Your task to perform on an android device: turn notification dots off Image 0: 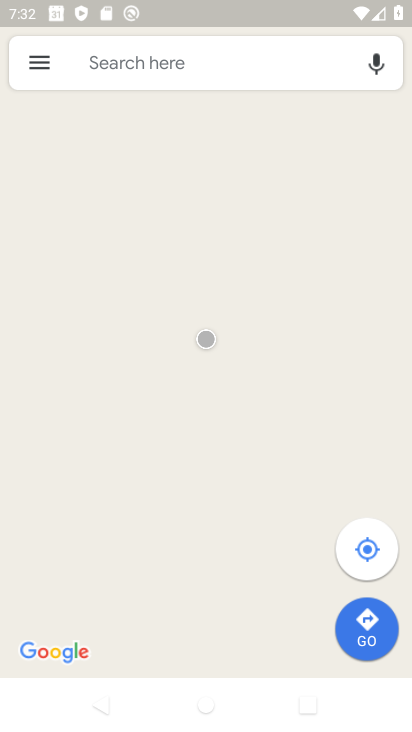
Step 0: press home button
Your task to perform on an android device: turn notification dots off Image 1: 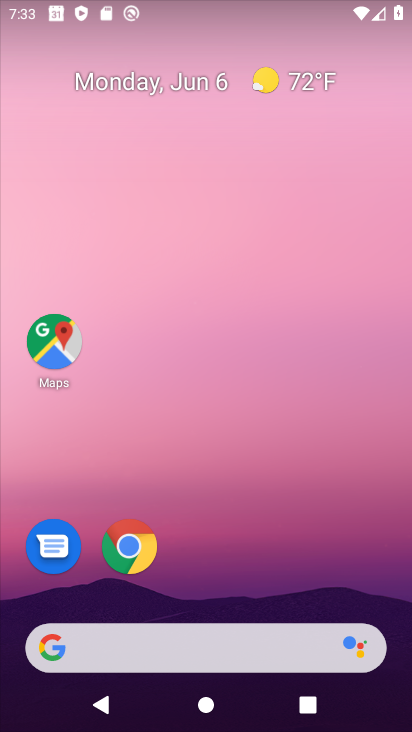
Step 1: drag from (219, 586) to (247, 207)
Your task to perform on an android device: turn notification dots off Image 2: 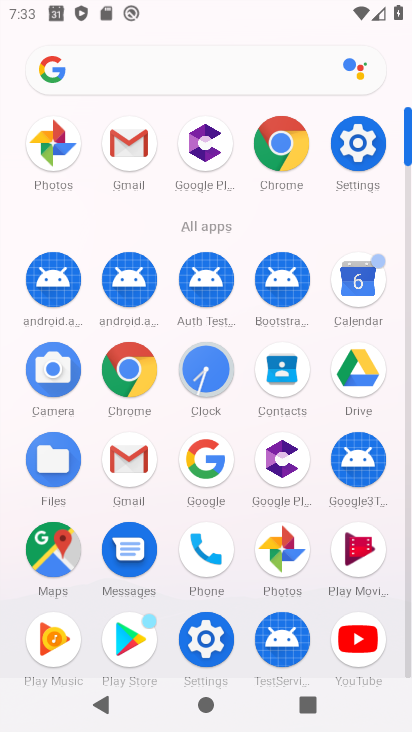
Step 2: click (337, 134)
Your task to perform on an android device: turn notification dots off Image 3: 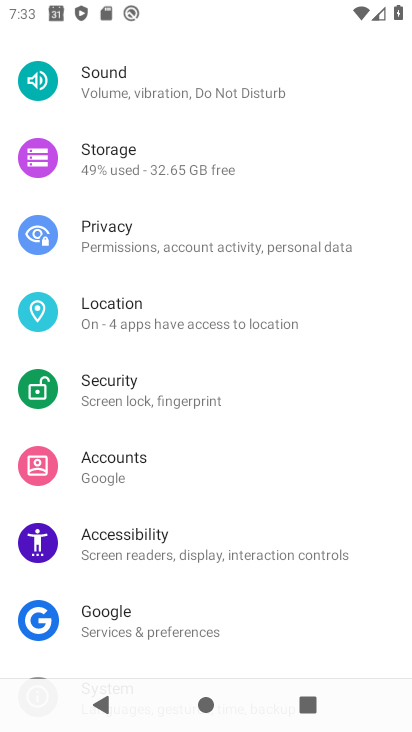
Step 3: drag from (183, 104) to (189, 508)
Your task to perform on an android device: turn notification dots off Image 4: 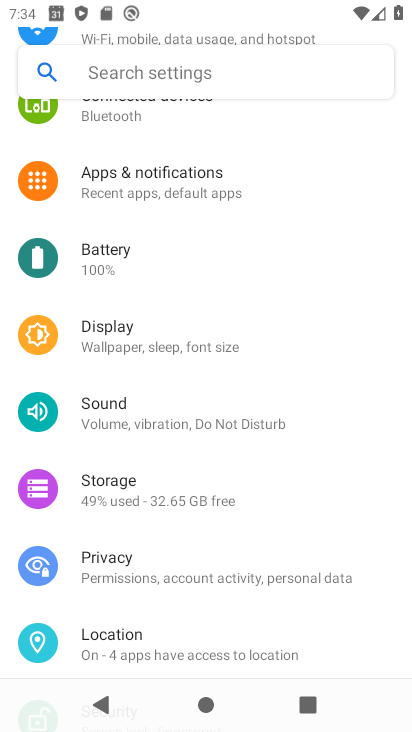
Step 4: click (177, 56)
Your task to perform on an android device: turn notification dots off Image 5: 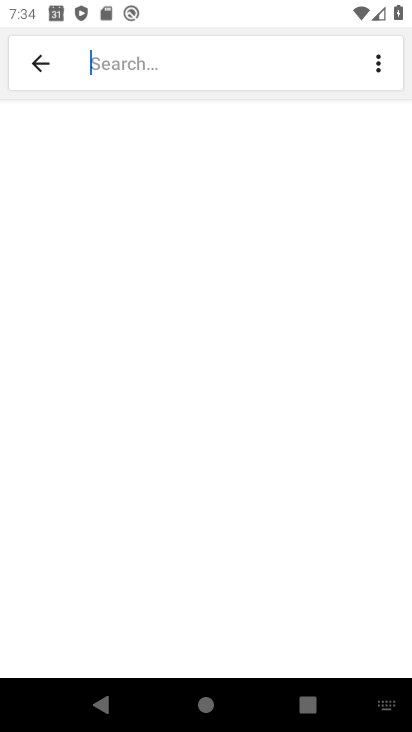
Step 5: type "notification dots"
Your task to perform on an android device: turn notification dots off Image 6: 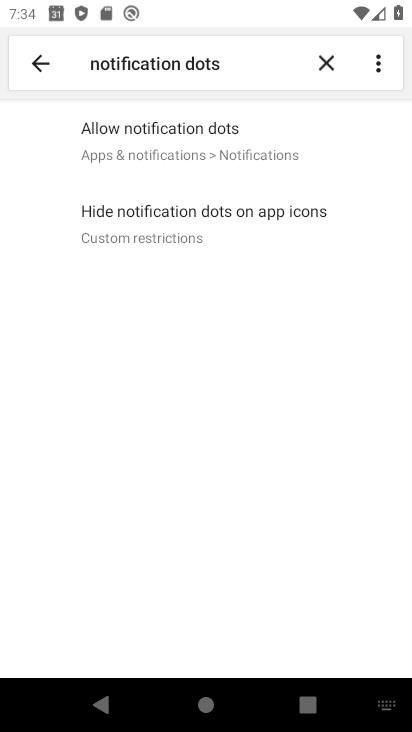
Step 6: click (224, 142)
Your task to perform on an android device: turn notification dots off Image 7: 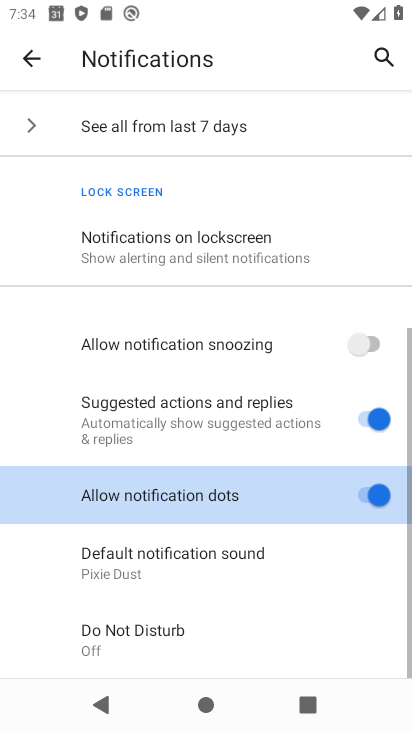
Step 7: click (355, 501)
Your task to perform on an android device: turn notification dots off Image 8: 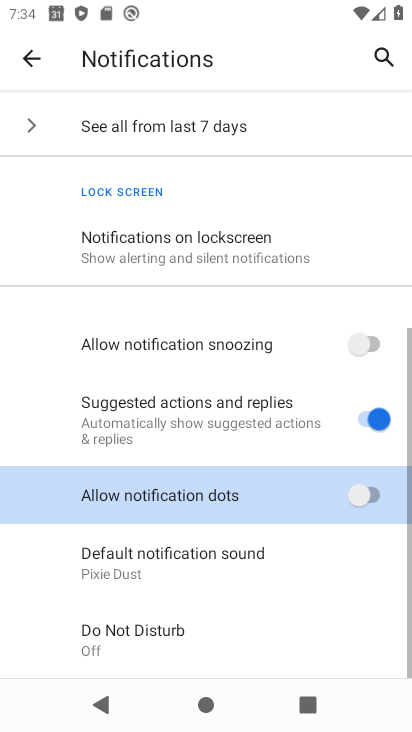
Step 8: task complete